Your task to perform on an android device: toggle notification dots Image 0: 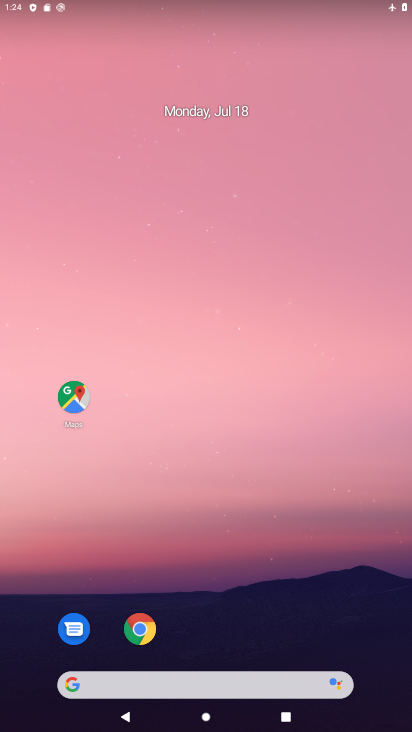
Step 0: drag from (238, 585) to (254, 162)
Your task to perform on an android device: toggle notification dots Image 1: 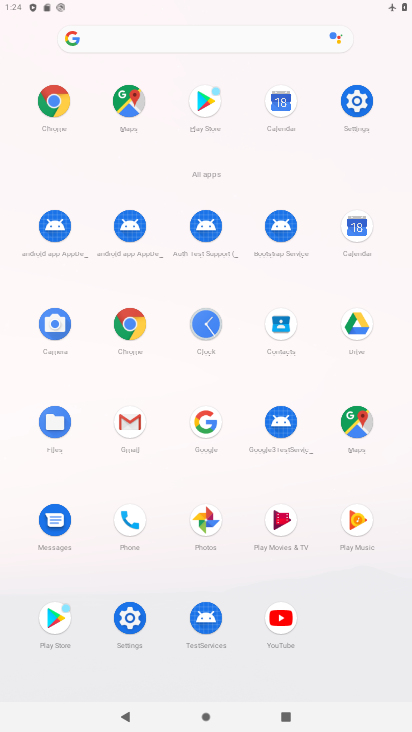
Step 1: click (127, 616)
Your task to perform on an android device: toggle notification dots Image 2: 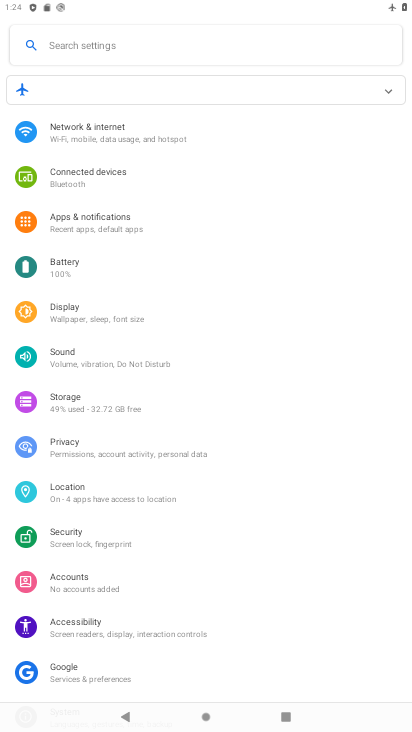
Step 2: click (85, 36)
Your task to perform on an android device: toggle notification dots Image 3: 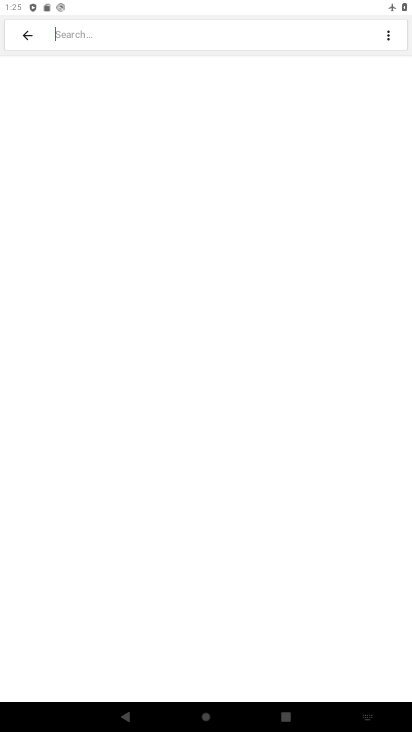
Step 3: type "toggle notification dots"
Your task to perform on an android device: toggle notification dots Image 4: 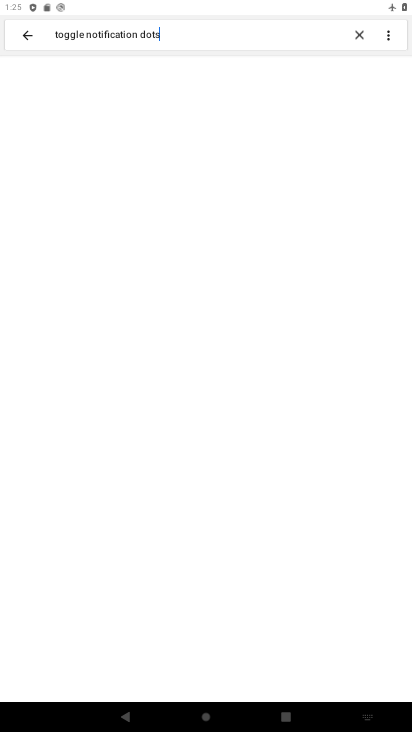
Step 4: press enter
Your task to perform on an android device: toggle notification dots Image 5: 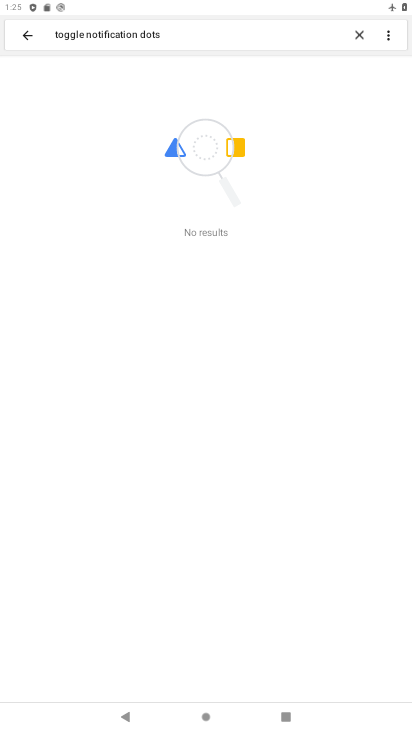
Step 5: type ""
Your task to perform on an android device: toggle notification dots Image 6: 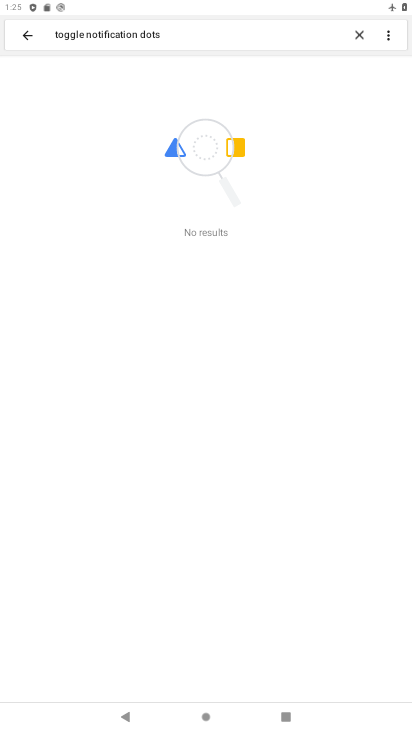
Step 6: task complete